Your task to perform on an android device: toggle javascript in the chrome app Image 0: 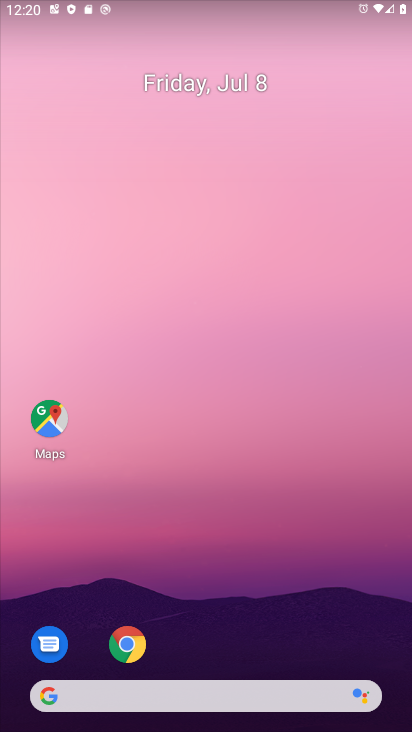
Step 0: drag from (217, 660) to (222, 311)
Your task to perform on an android device: toggle javascript in the chrome app Image 1: 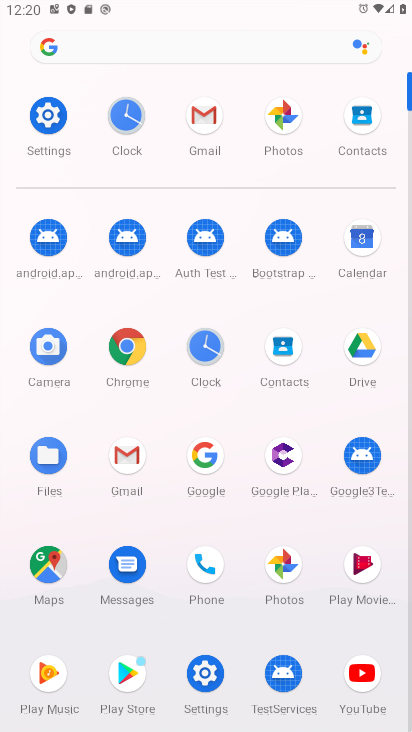
Step 1: click (116, 375)
Your task to perform on an android device: toggle javascript in the chrome app Image 2: 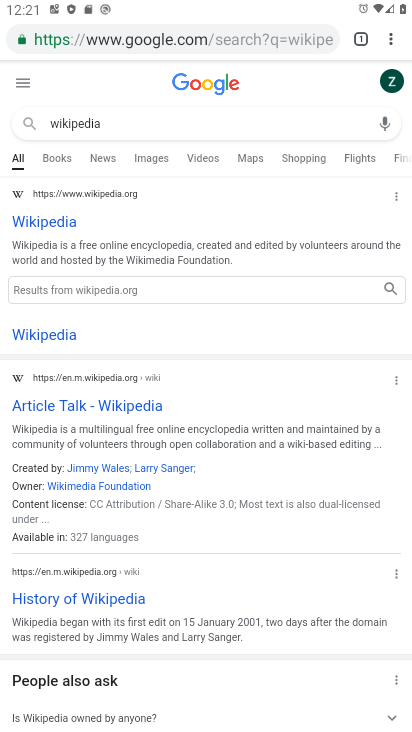
Step 2: click (394, 36)
Your task to perform on an android device: toggle javascript in the chrome app Image 3: 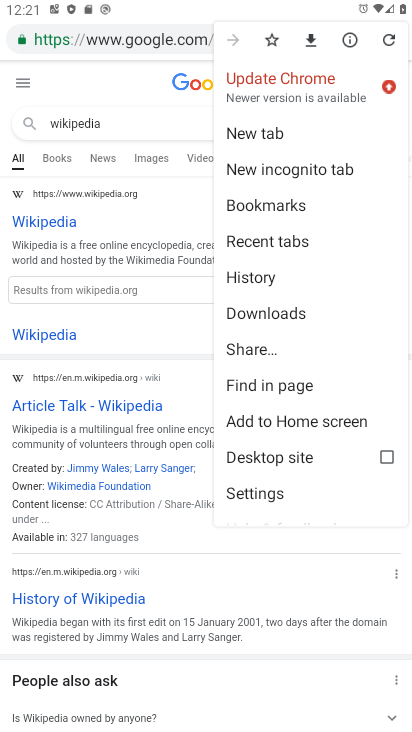
Step 3: click (272, 495)
Your task to perform on an android device: toggle javascript in the chrome app Image 4: 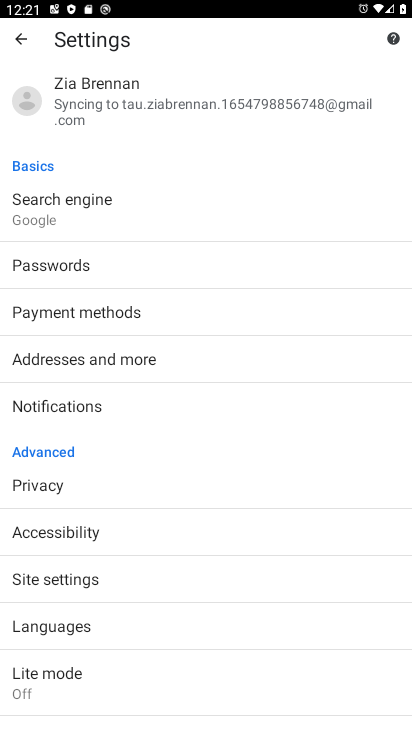
Step 4: click (59, 583)
Your task to perform on an android device: toggle javascript in the chrome app Image 5: 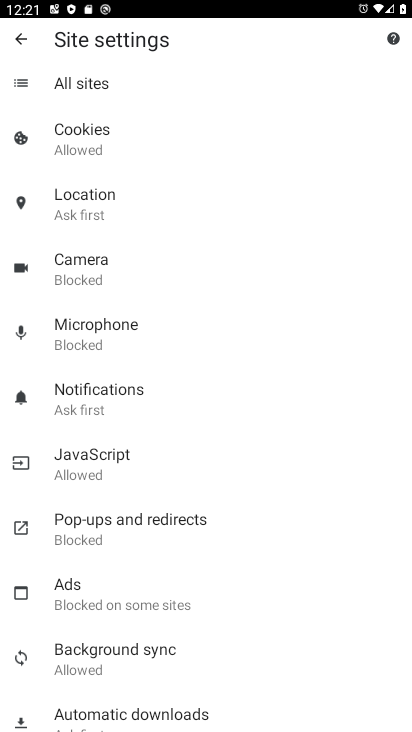
Step 5: click (126, 458)
Your task to perform on an android device: toggle javascript in the chrome app Image 6: 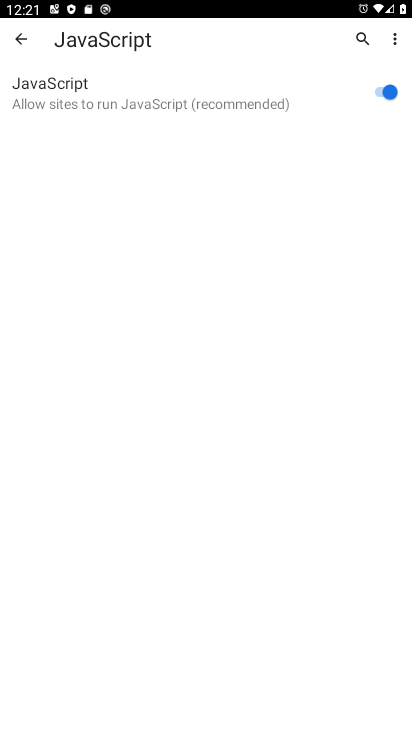
Step 6: click (371, 85)
Your task to perform on an android device: toggle javascript in the chrome app Image 7: 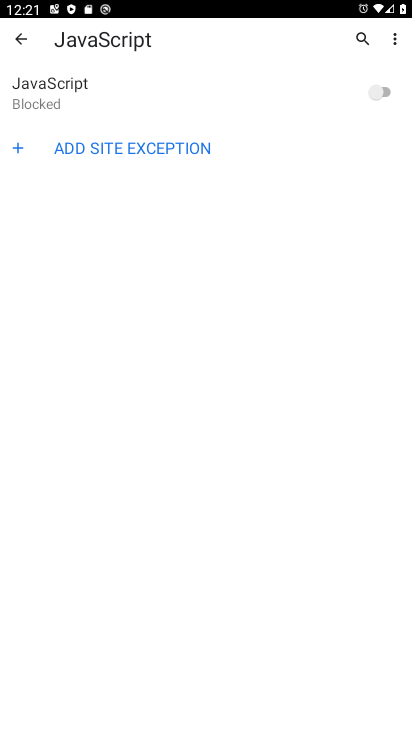
Step 7: task complete